Your task to perform on an android device: open sync settings in chrome Image 0: 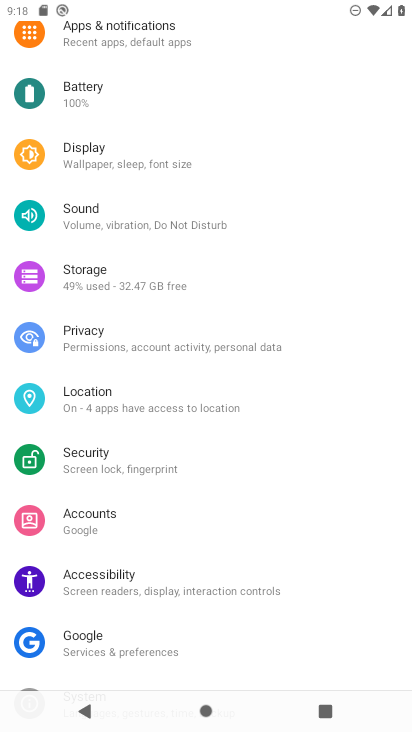
Step 0: press home button
Your task to perform on an android device: open sync settings in chrome Image 1: 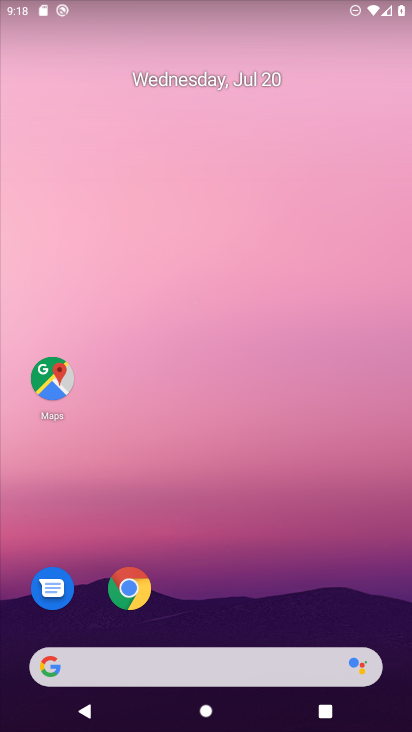
Step 1: click (127, 593)
Your task to perform on an android device: open sync settings in chrome Image 2: 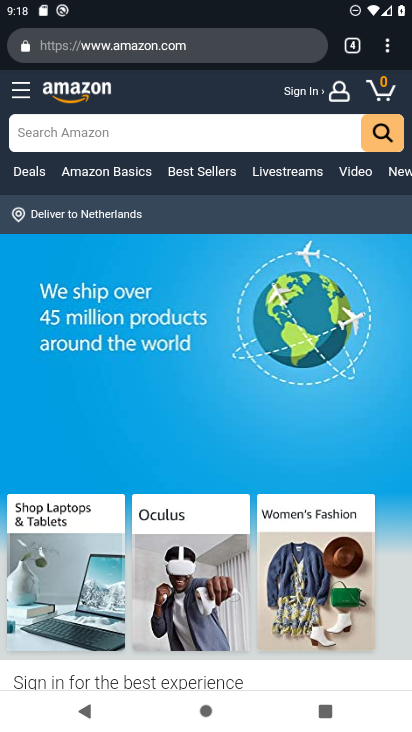
Step 2: click (398, 47)
Your task to perform on an android device: open sync settings in chrome Image 3: 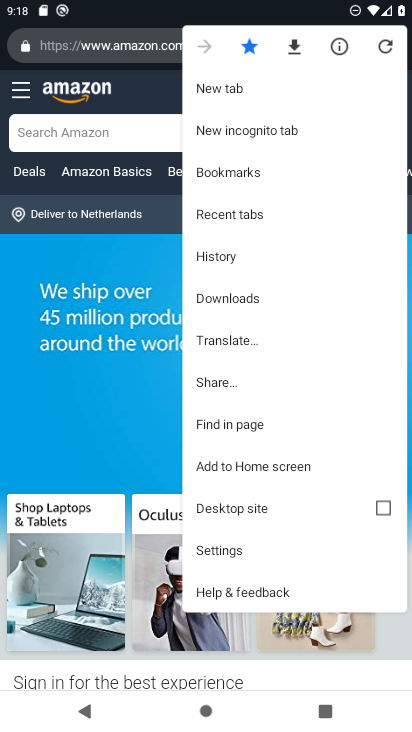
Step 3: click (250, 554)
Your task to perform on an android device: open sync settings in chrome Image 4: 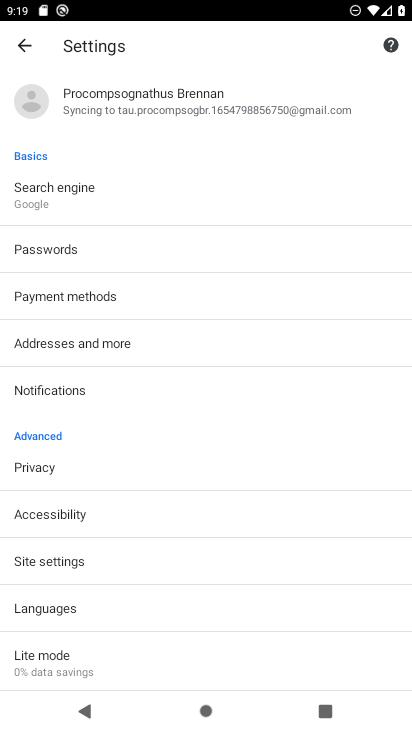
Step 4: click (140, 119)
Your task to perform on an android device: open sync settings in chrome Image 5: 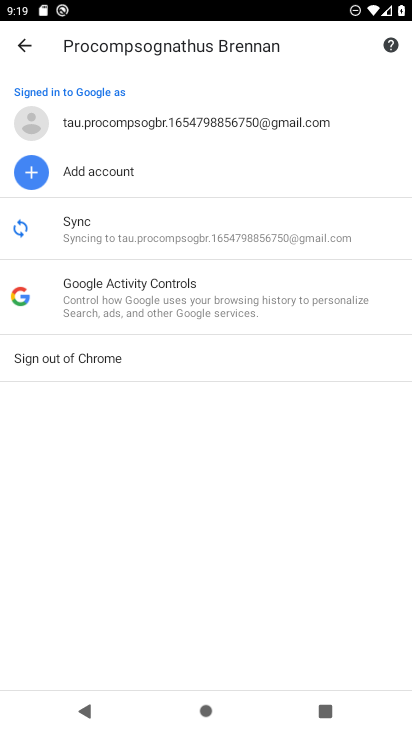
Step 5: click (127, 245)
Your task to perform on an android device: open sync settings in chrome Image 6: 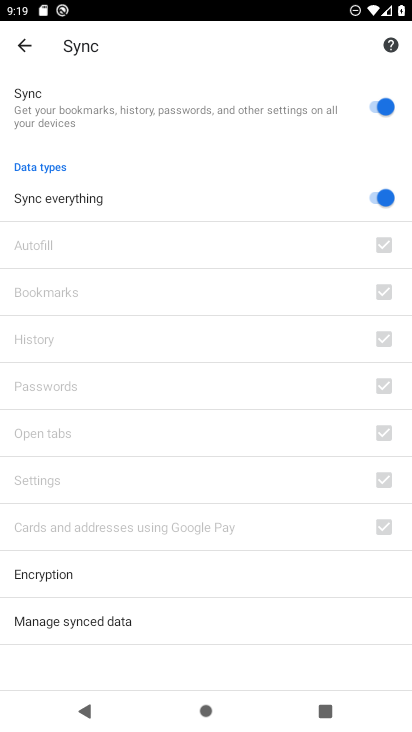
Step 6: task complete